Your task to perform on an android device: turn off improve location accuracy Image 0: 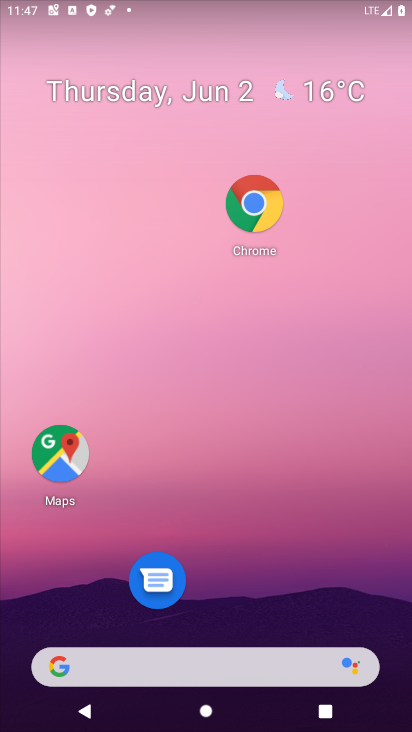
Step 0: drag from (199, 577) to (249, 206)
Your task to perform on an android device: turn off improve location accuracy Image 1: 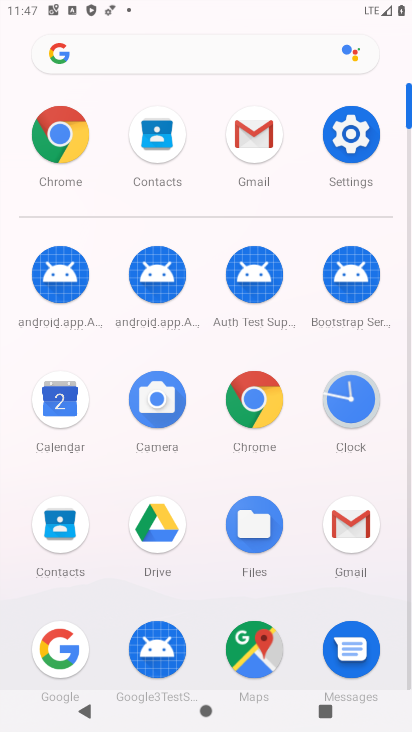
Step 1: click (364, 146)
Your task to perform on an android device: turn off improve location accuracy Image 2: 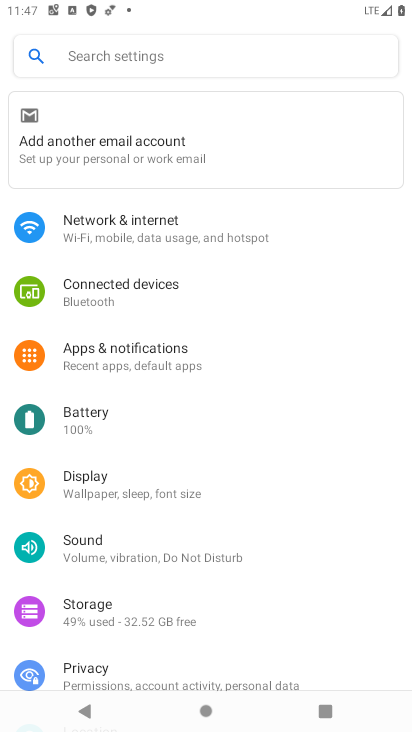
Step 2: drag from (177, 575) to (212, 231)
Your task to perform on an android device: turn off improve location accuracy Image 3: 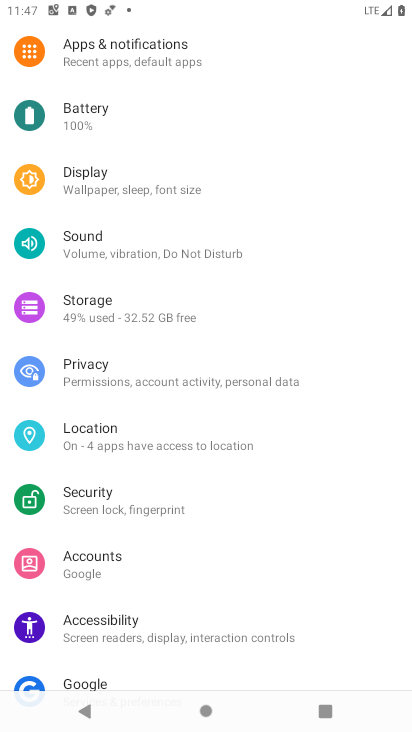
Step 3: click (168, 445)
Your task to perform on an android device: turn off improve location accuracy Image 4: 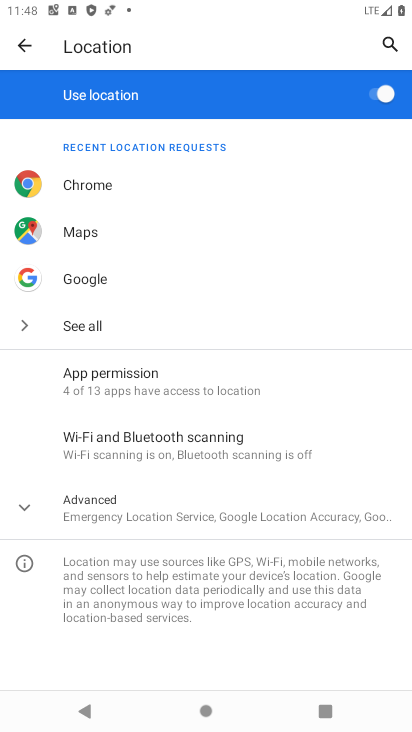
Step 4: click (190, 512)
Your task to perform on an android device: turn off improve location accuracy Image 5: 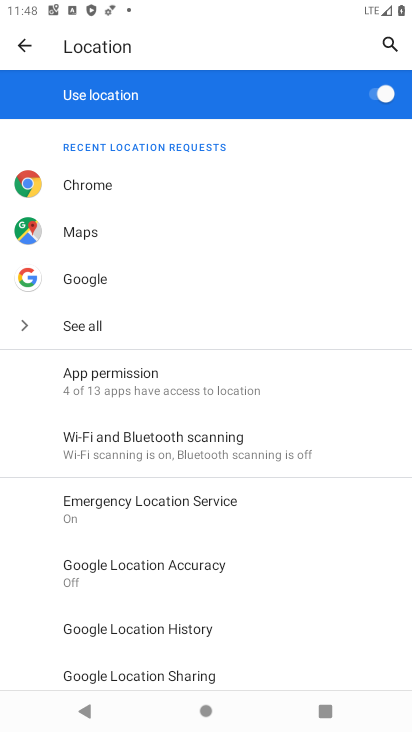
Step 5: click (191, 562)
Your task to perform on an android device: turn off improve location accuracy Image 6: 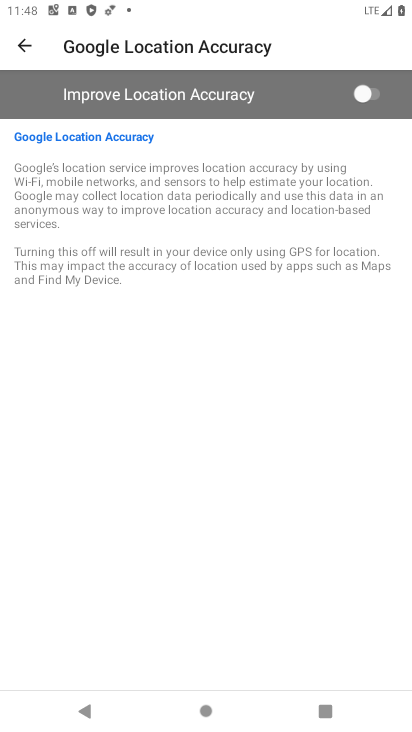
Step 6: task complete